Your task to perform on an android device: Open CNN.com Image 0: 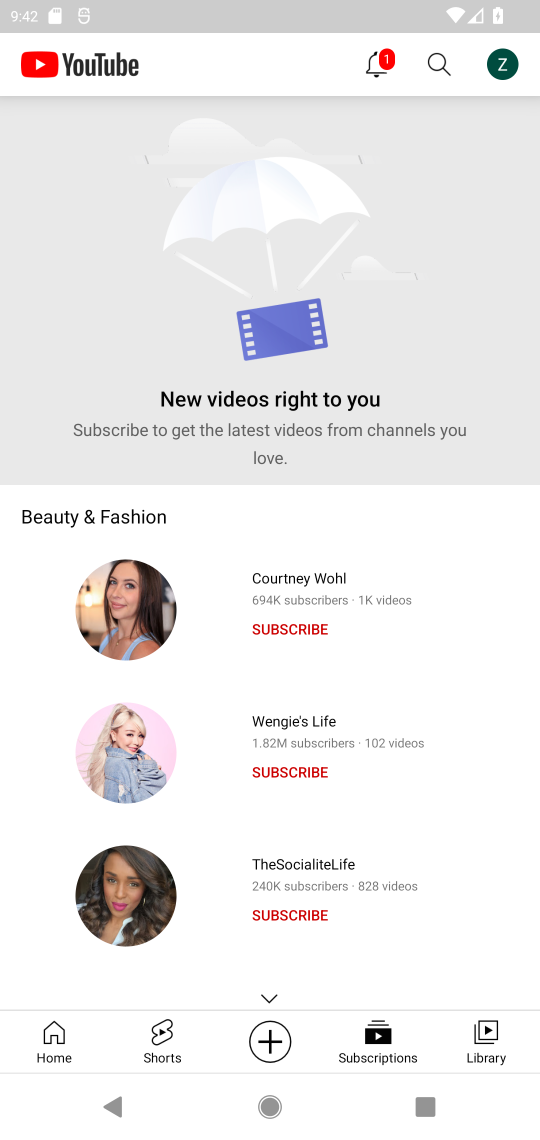
Step 0: press home button
Your task to perform on an android device: Open CNN.com Image 1: 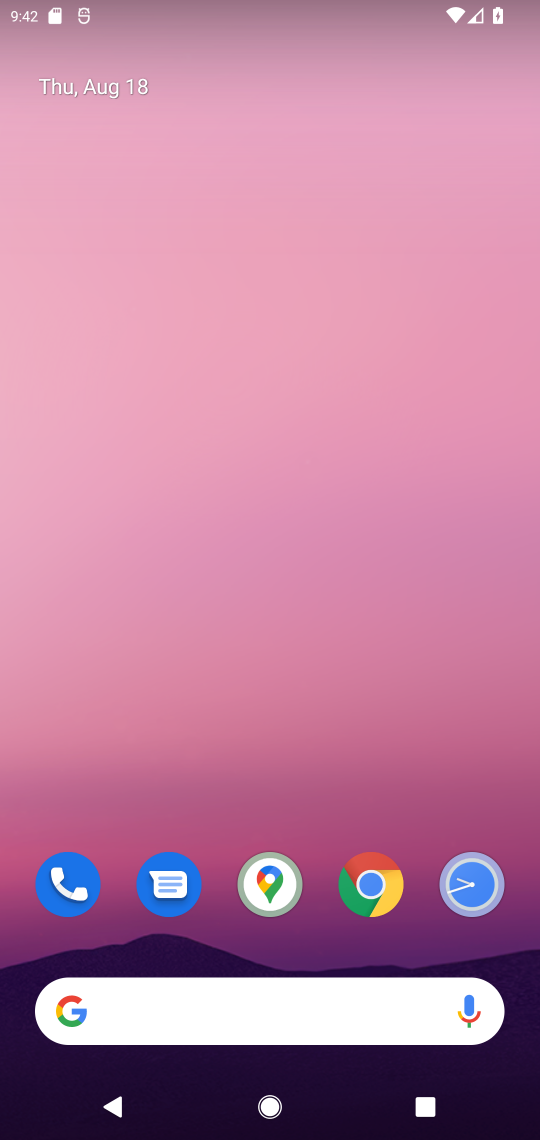
Step 1: click (235, 1005)
Your task to perform on an android device: Open CNN.com Image 2: 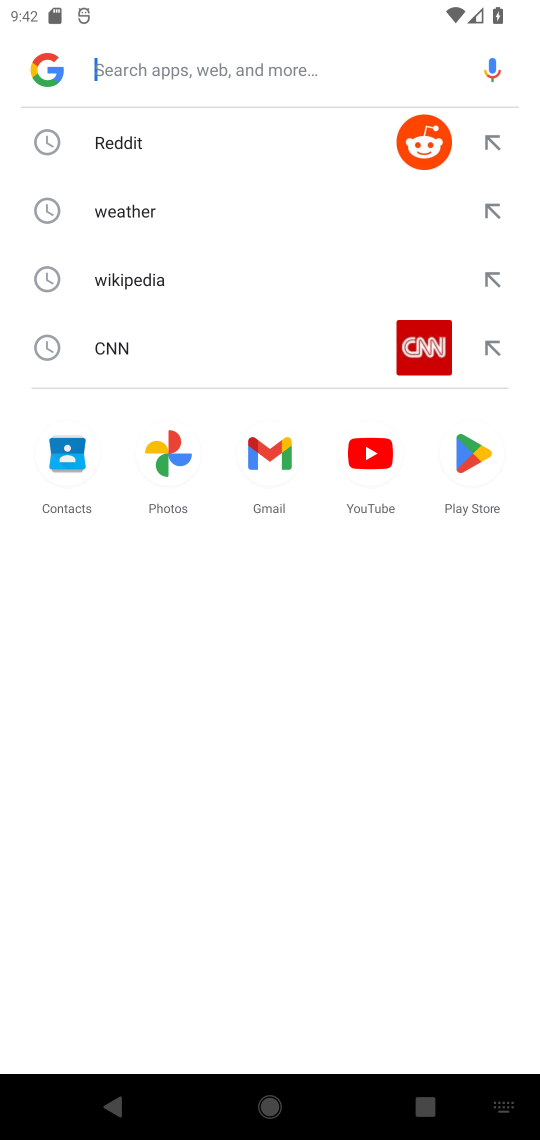
Step 2: click (212, 368)
Your task to perform on an android device: Open CNN.com Image 3: 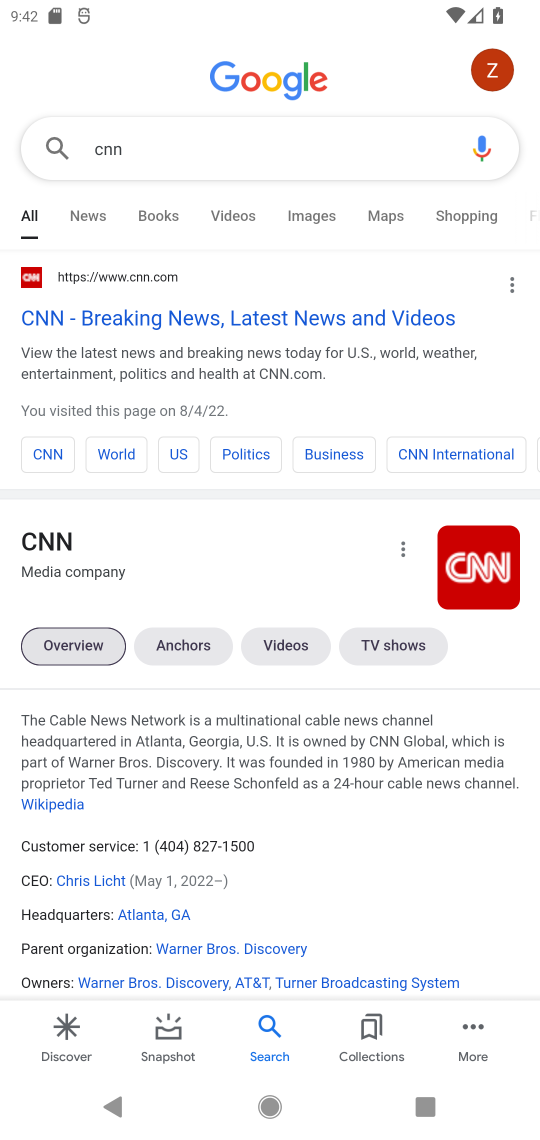
Step 3: click (196, 305)
Your task to perform on an android device: Open CNN.com Image 4: 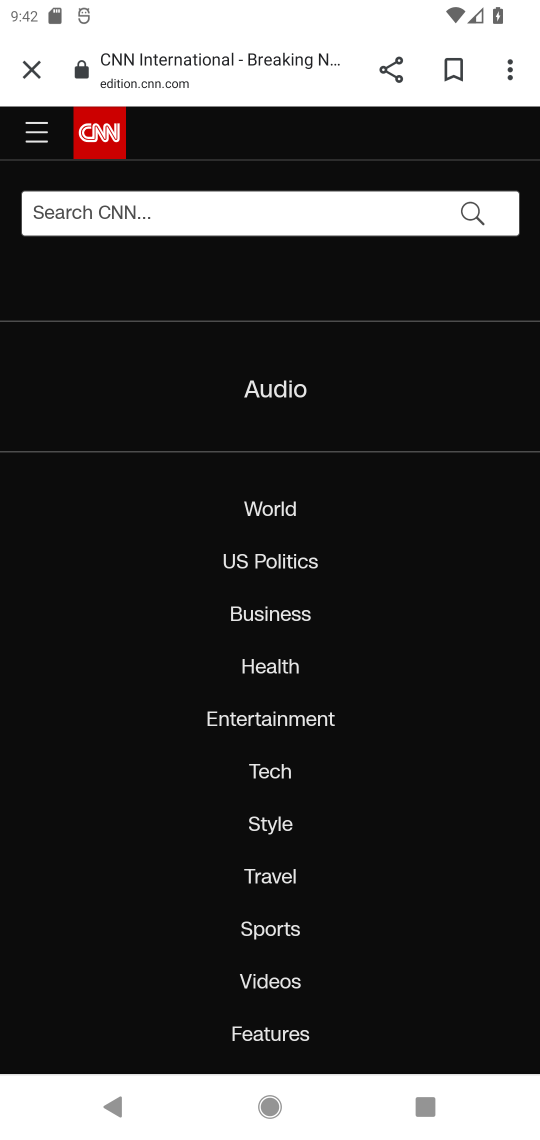
Step 4: task complete